Your task to perform on an android device: Open ESPN.com Image 0: 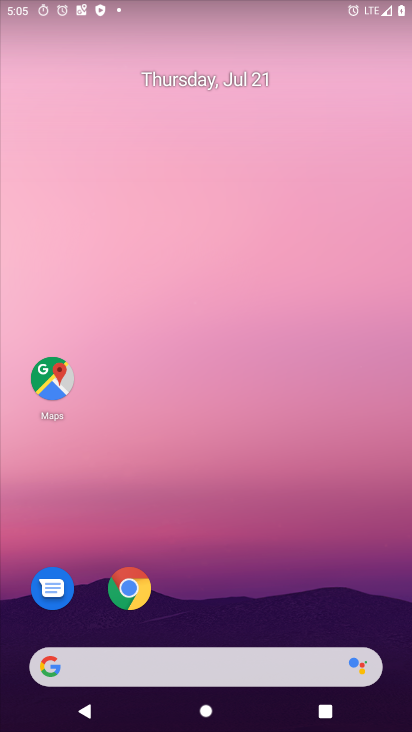
Step 0: drag from (292, 615) to (323, 104)
Your task to perform on an android device: Open ESPN.com Image 1: 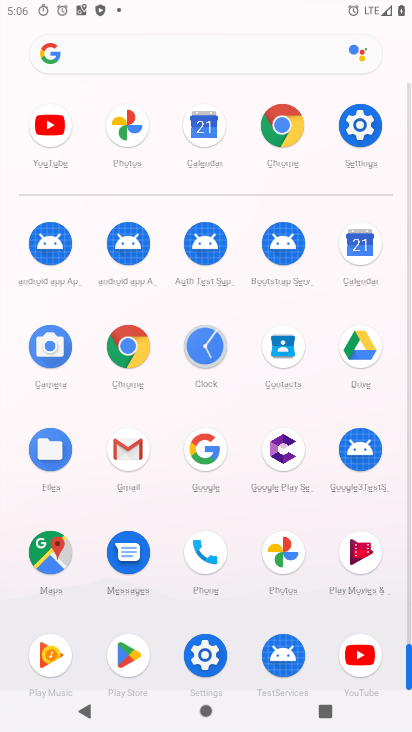
Step 1: click (137, 351)
Your task to perform on an android device: Open ESPN.com Image 2: 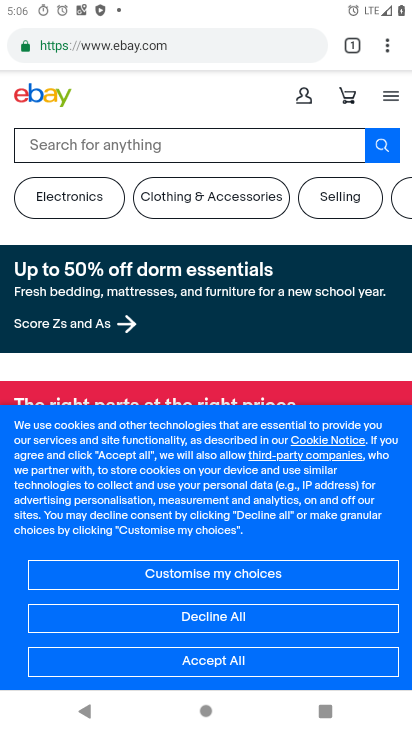
Step 2: click (109, 53)
Your task to perform on an android device: Open ESPN.com Image 3: 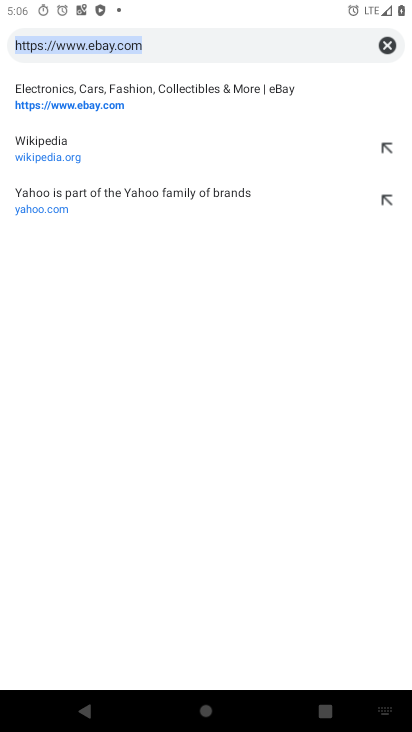
Step 3: click (392, 44)
Your task to perform on an android device: Open ESPN.com Image 4: 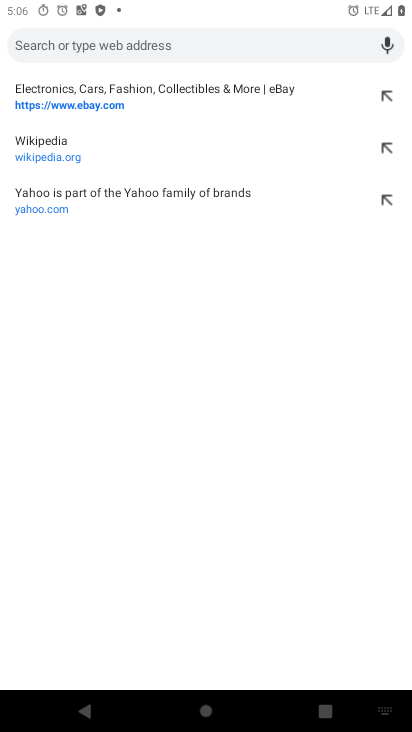
Step 4: type "ESPN.com"
Your task to perform on an android device: Open ESPN.com Image 5: 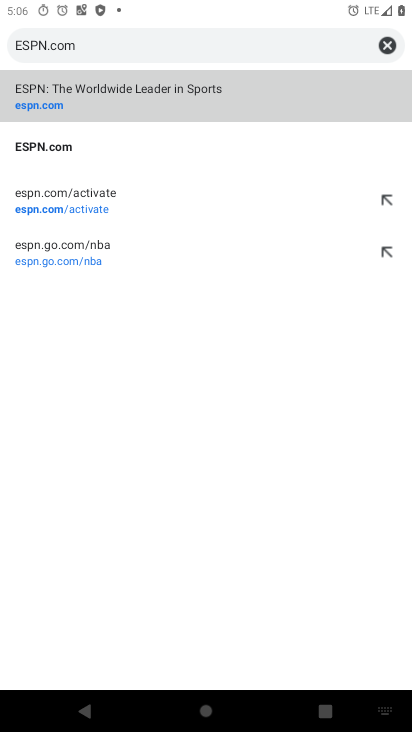
Step 5: click (18, 105)
Your task to perform on an android device: Open ESPN.com Image 6: 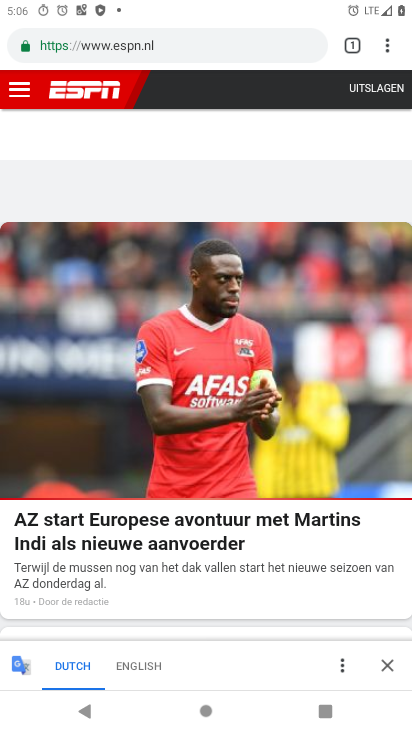
Step 6: task complete